Your task to perform on an android device: delete the emails in spam in the gmail app Image 0: 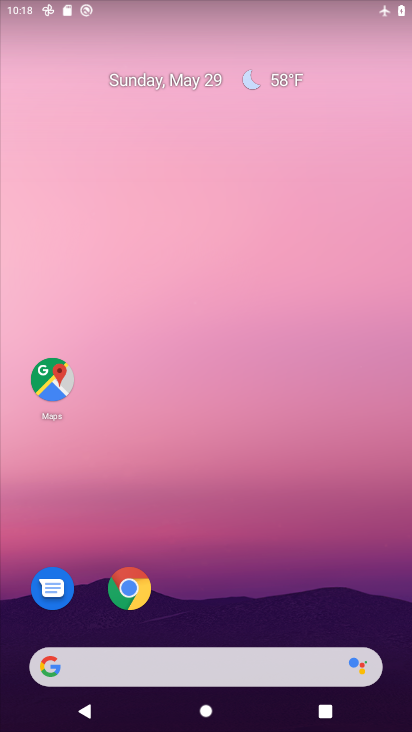
Step 0: drag from (223, 573) to (193, 194)
Your task to perform on an android device: delete the emails in spam in the gmail app Image 1: 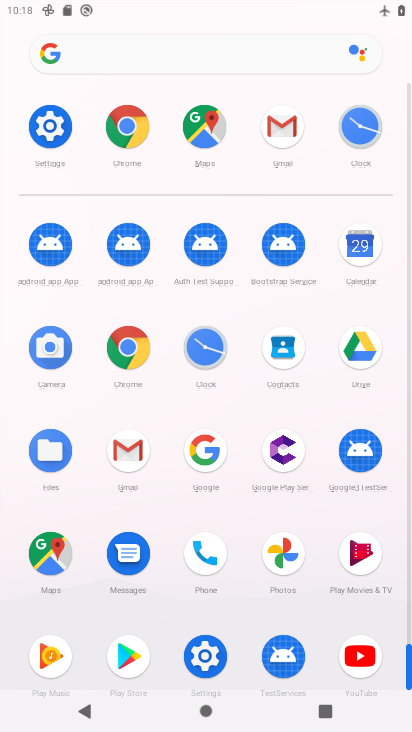
Step 1: click (277, 122)
Your task to perform on an android device: delete the emails in spam in the gmail app Image 2: 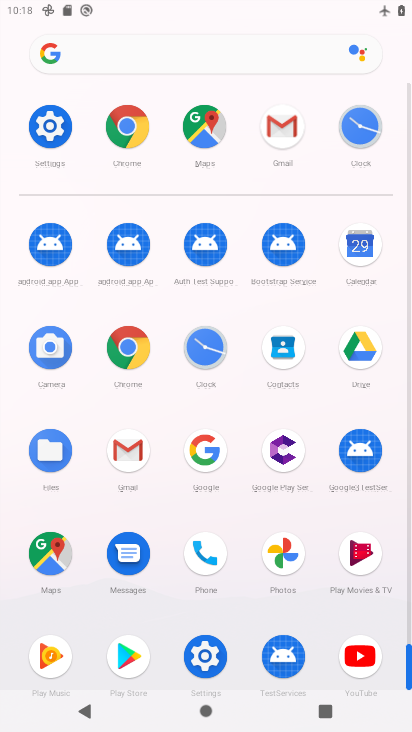
Step 2: click (279, 122)
Your task to perform on an android device: delete the emails in spam in the gmail app Image 3: 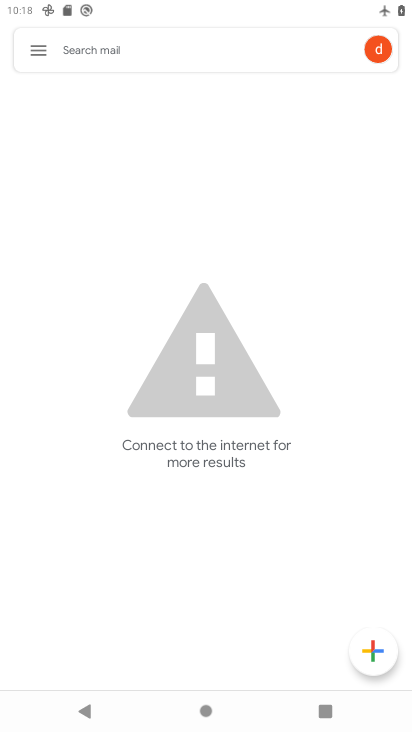
Step 3: press back button
Your task to perform on an android device: delete the emails in spam in the gmail app Image 4: 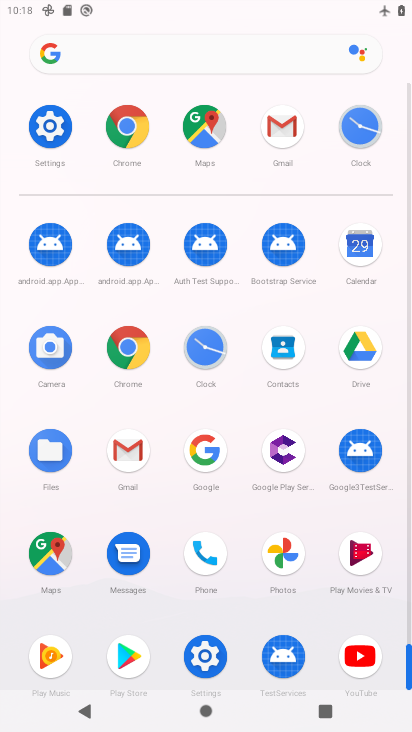
Step 4: click (267, 114)
Your task to perform on an android device: delete the emails in spam in the gmail app Image 5: 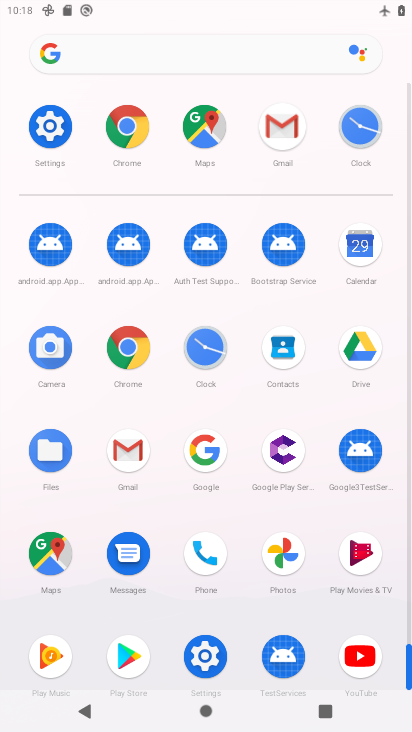
Step 5: click (270, 121)
Your task to perform on an android device: delete the emails in spam in the gmail app Image 6: 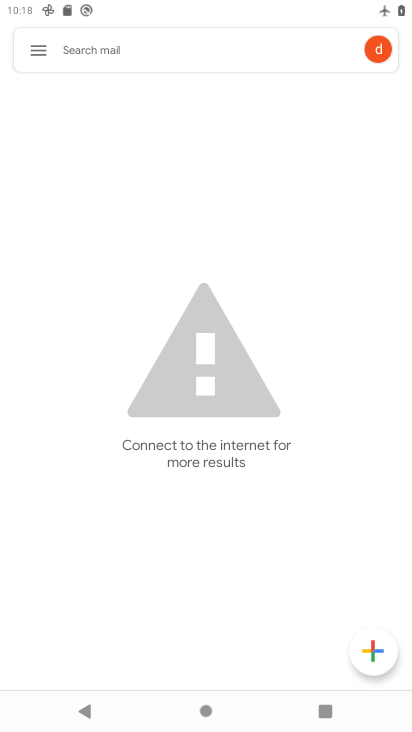
Step 6: click (33, 41)
Your task to perform on an android device: delete the emails in spam in the gmail app Image 7: 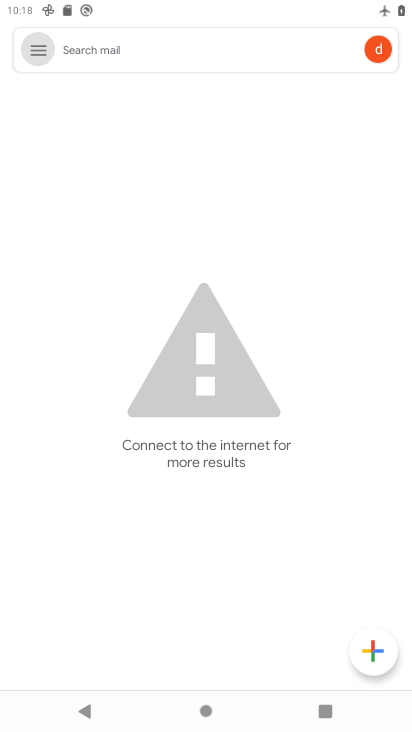
Step 7: click (34, 50)
Your task to perform on an android device: delete the emails in spam in the gmail app Image 8: 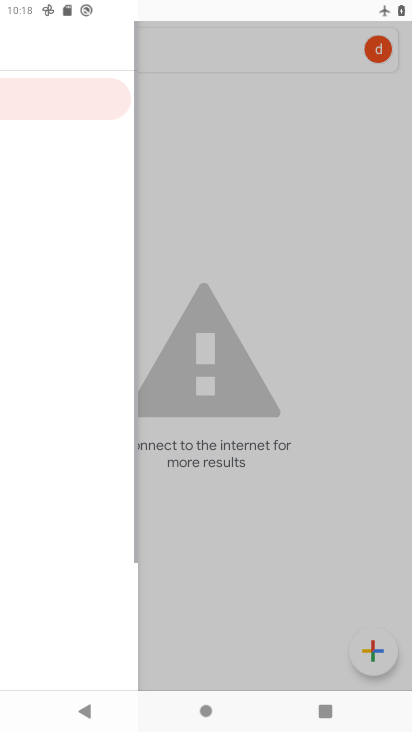
Step 8: click (34, 50)
Your task to perform on an android device: delete the emails in spam in the gmail app Image 9: 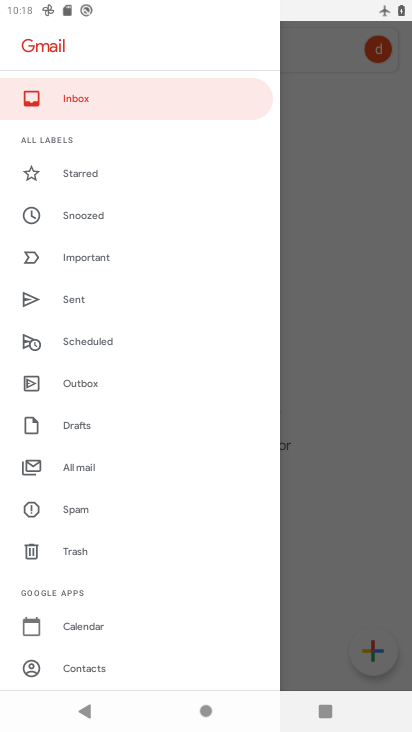
Step 9: click (82, 463)
Your task to perform on an android device: delete the emails in spam in the gmail app Image 10: 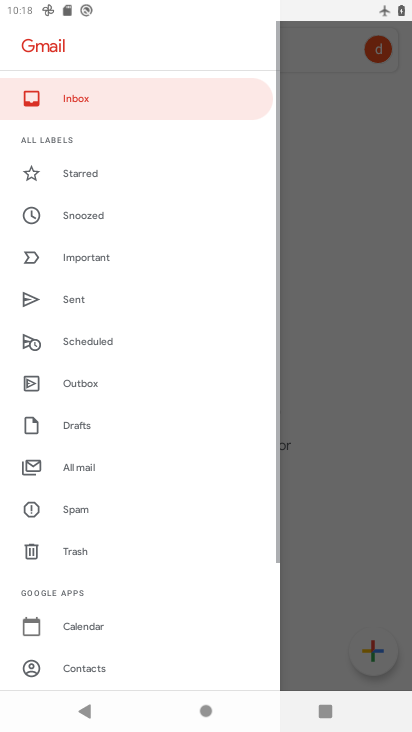
Step 10: click (82, 463)
Your task to perform on an android device: delete the emails in spam in the gmail app Image 11: 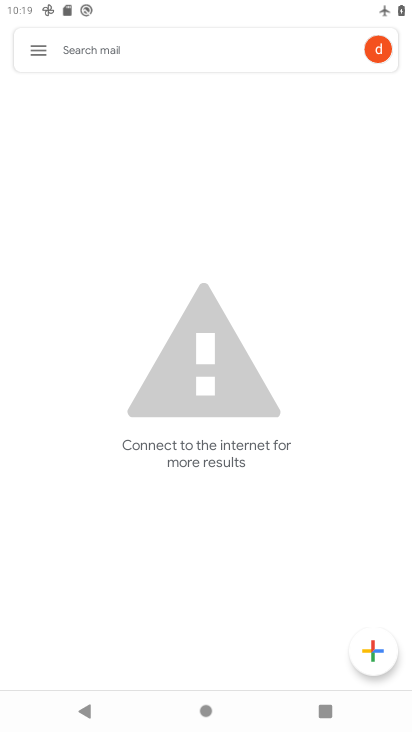
Step 11: task complete